Your task to perform on an android device: toggle javascript in the chrome app Image 0: 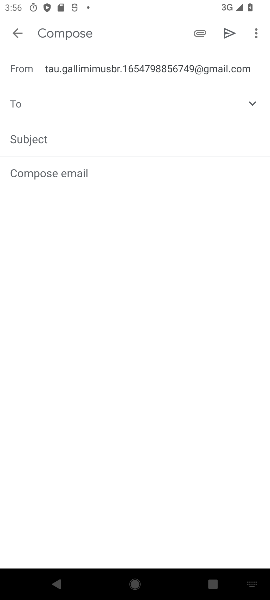
Step 0: press home button
Your task to perform on an android device: toggle javascript in the chrome app Image 1: 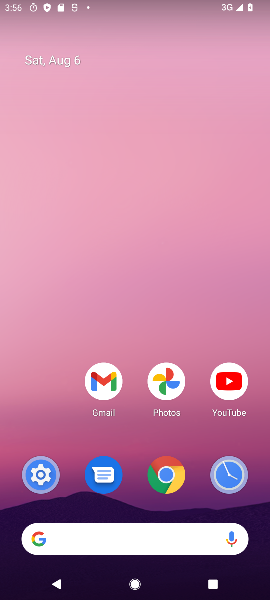
Step 1: click (160, 478)
Your task to perform on an android device: toggle javascript in the chrome app Image 2: 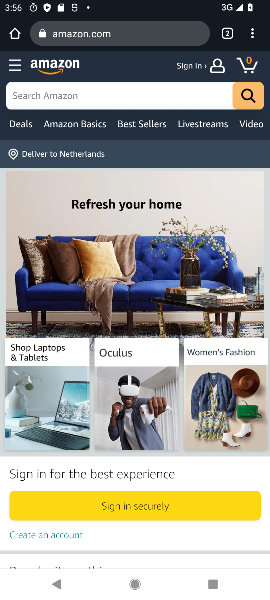
Step 2: click (253, 38)
Your task to perform on an android device: toggle javascript in the chrome app Image 3: 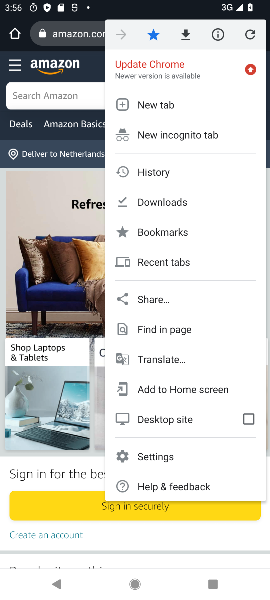
Step 3: click (147, 453)
Your task to perform on an android device: toggle javascript in the chrome app Image 4: 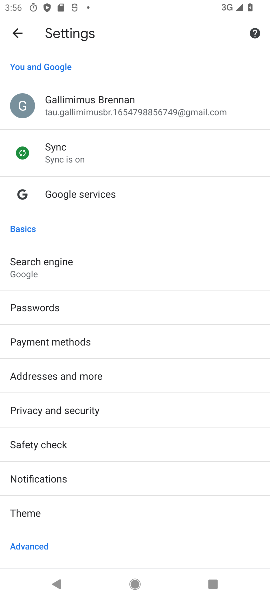
Step 4: drag from (187, 565) to (83, 122)
Your task to perform on an android device: toggle javascript in the chrome app Image 5: 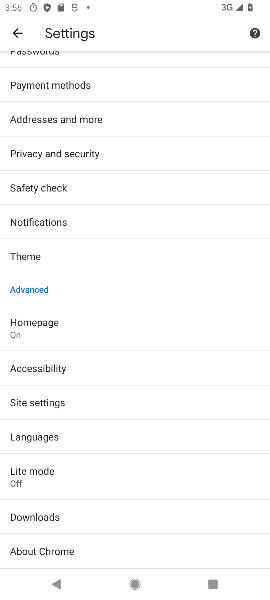
Step 5: click (32, 397)
Your task to perform on an android device: toggle javascript in the chrome app Image 6: 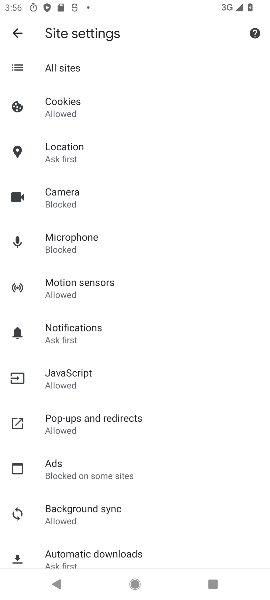
Step 6: click (60, 379)
Your task to perform on an android device: toggle javascript in the chrome app Image 7: 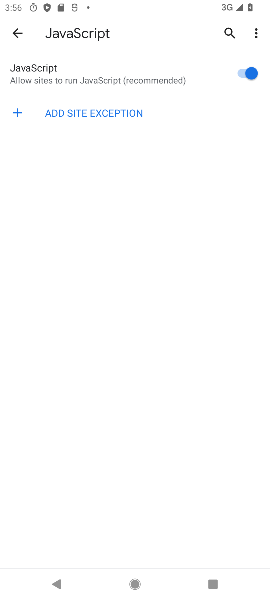
Step 7: task complete